Your task to perform on an android device: Play the last video I watched on Youtube Image 0: 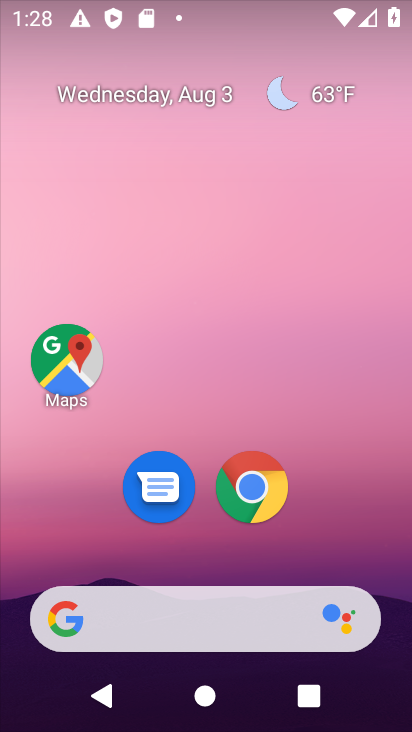
Step 0: drag from (292, 535) to (281, 99)
Your task to perform on an android device: Play the last video I watched on Youtube Image 1: 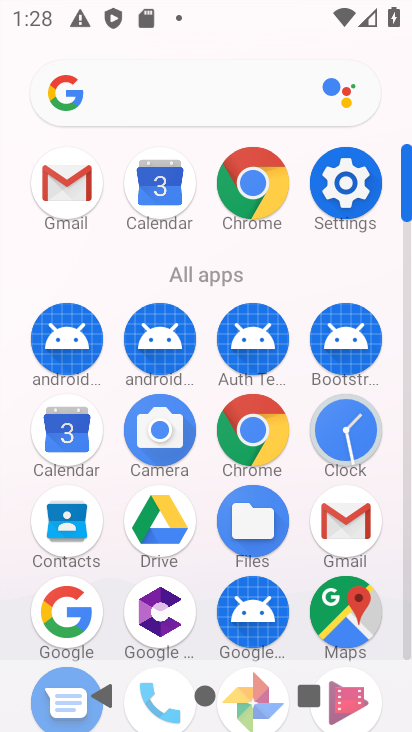
Step 1: drag from (303, 460) to (326, 105)
Your task to perform on an android device: Play the last video I watched on Youtube Image 2: 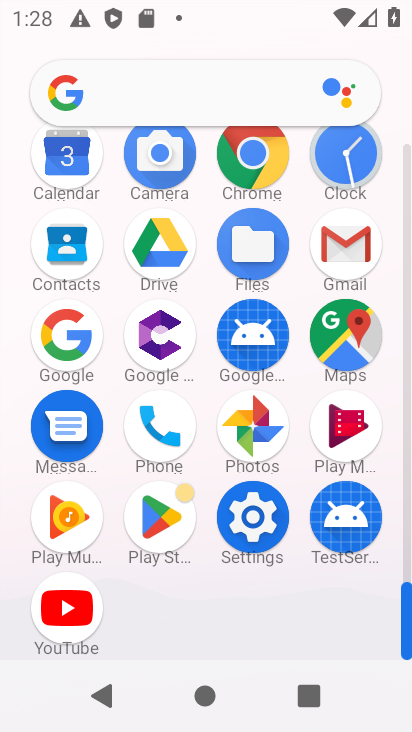
Step 2: click (56, 609)
Your task to perform on an android device: Play the last video I watched on Youtube Image 3: 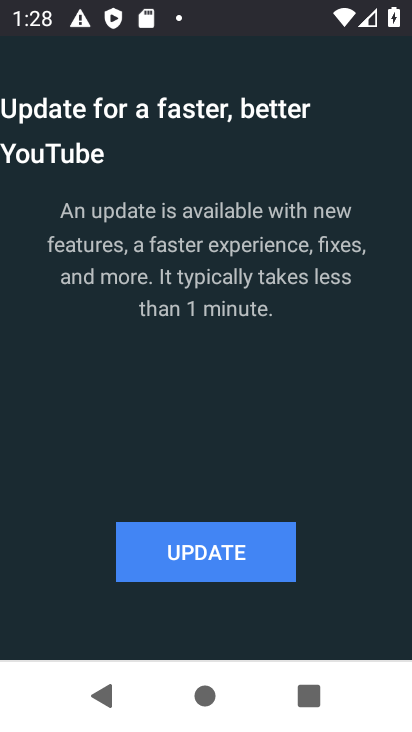
Step 3: press home button
Your task to perform on an android device: Play the last video I watched on Youtube Image 4: 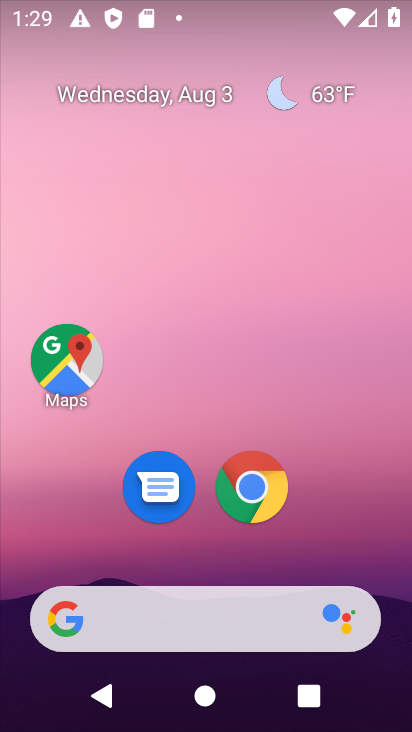
Step 4: drag from (325, 533) to (298, 88)
Your task to perform on an android device: Play the last video I watched on Youtube Image 5: 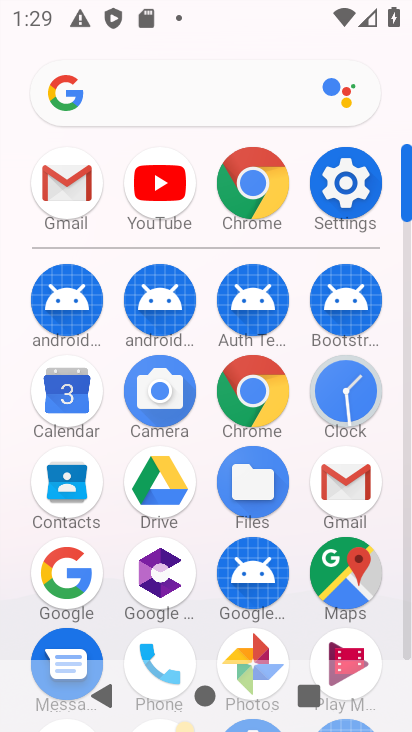
Step 5: click (170, 184)
Your task to perform on an android device: Play the last video I watched on Youtube Image 6: 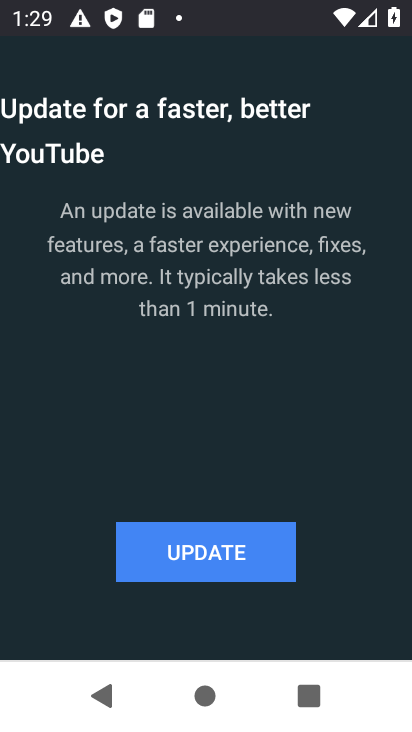
Step 6: click (246, 544)
Your task to perform on an android device: Play the last video I watched on Youtube Image 7: 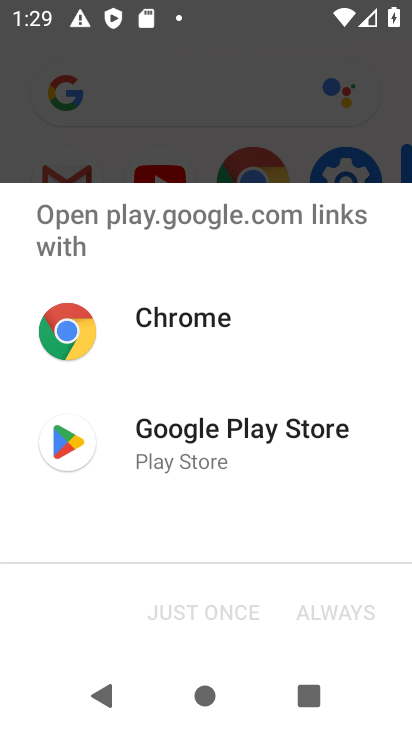
Step 7: click (191, 430)
Your task to perform on an android device: Play the last video I watched on Youtube Image 8: 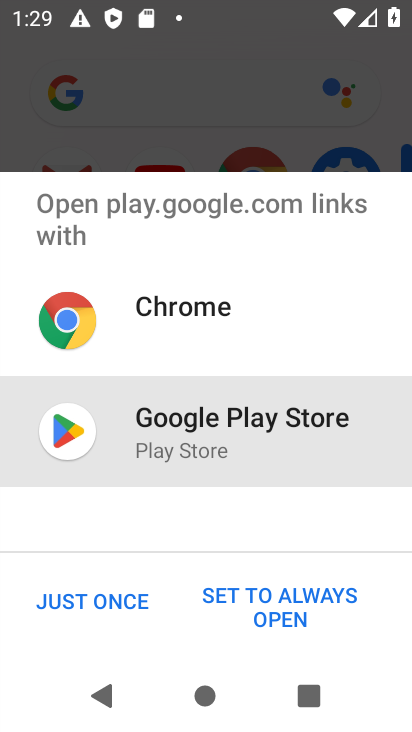
Step 8: click (113, 598)
Your task to perform on an android device: Play the last video I watched on Youtube Image 9: 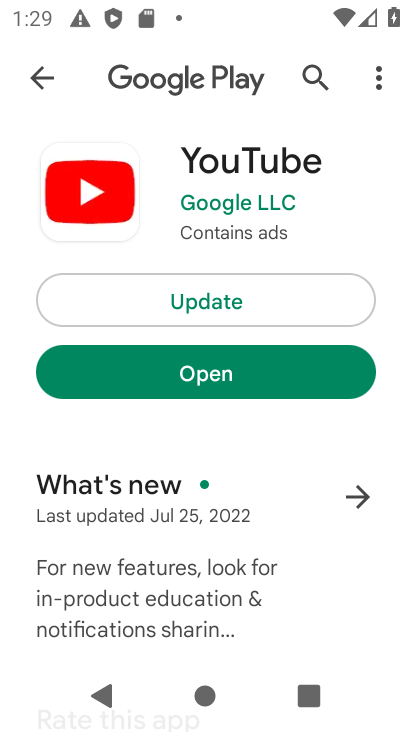
Step 9: click (268, 287)
Your task to perform on an android device: Play the last video I watched on Youtube Image 10: 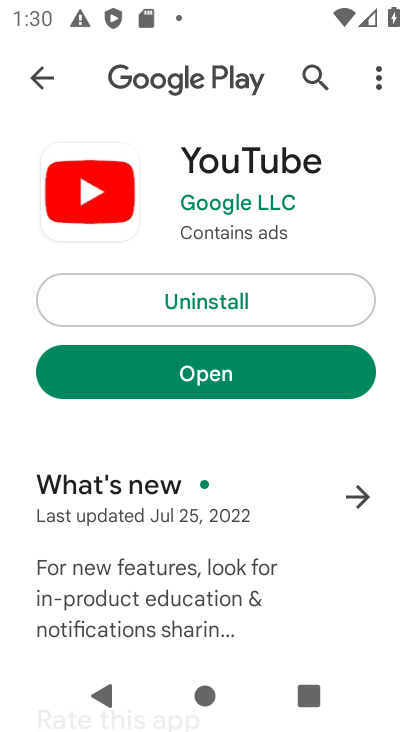
Step 10: click (199, 369)
Your task to perform on an android device: Play the last video I watched on Youtube Image 11: 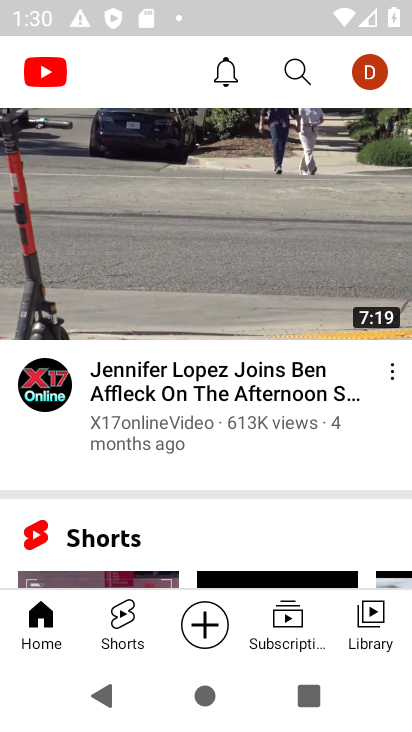
Step 11: click (367, 619)
Your task to perform on an android device: Play the last video I watched on Youtube Image 12: 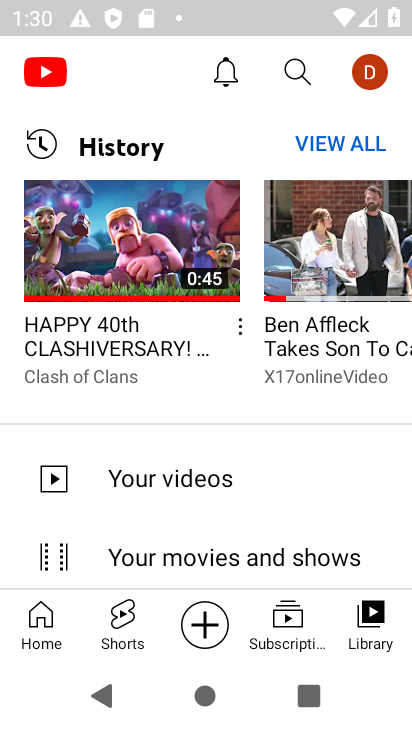
Step 12: drag from (211, 509) to (206, 213)
Your task to perform on an android device: Play the last video I watched on Youtube Image 13: 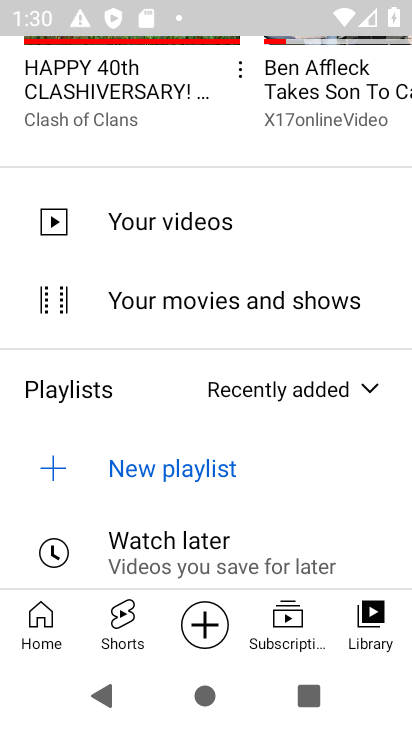
Step 13: drag from (203, 536) to (224, 321)
Your task to perform on an android device: Play the last video I watched on Youtube Image 14: 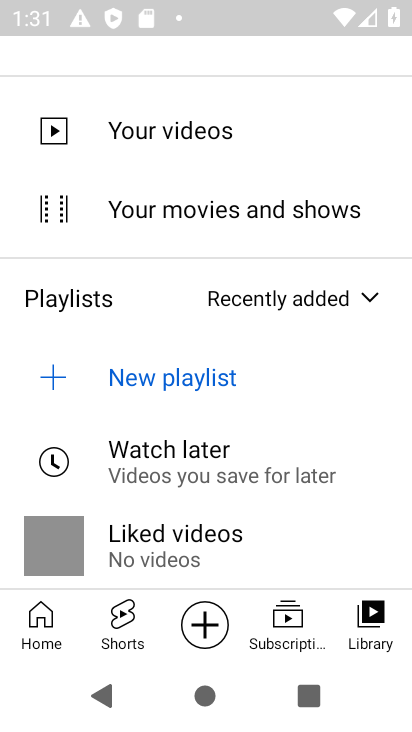
Step 14: click (154, 447)
Your task to perform on an android device: Play the last video I watched on Youtube Image 15: 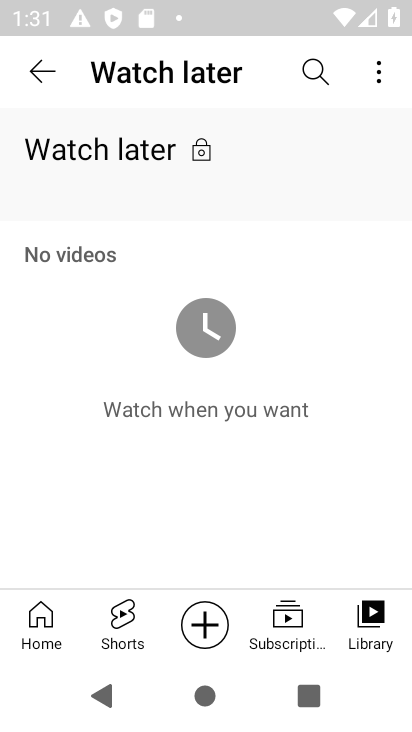
Step 15: task complete